Your task to perform on an android device: set default search engine in the chrome app Image 0: 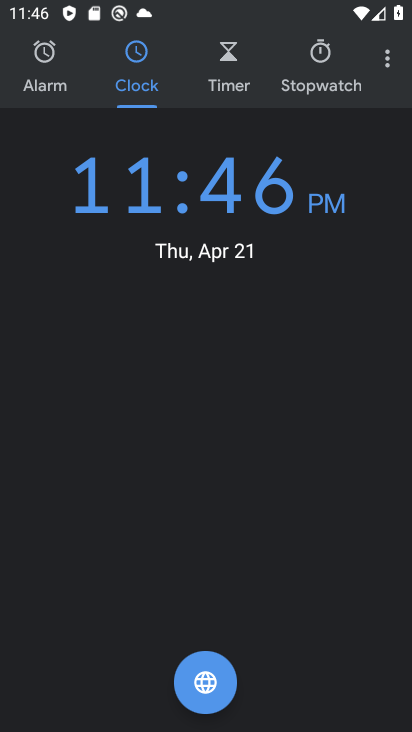
Step 0: press home button
Your task to perform on an android device: set default search engine in the chrome app Image 1: 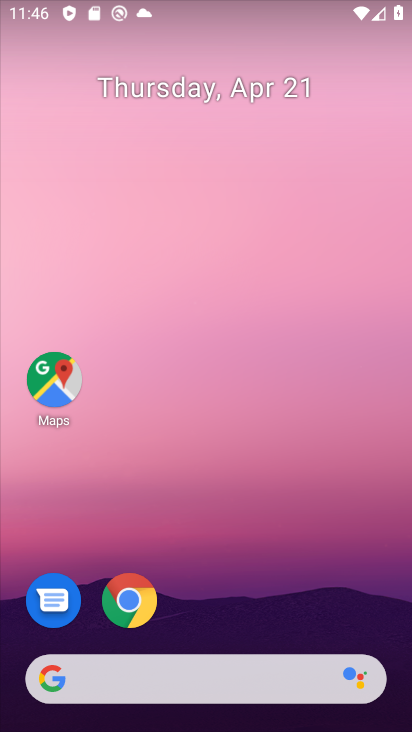
Step 1: click (112, 592)
Your task to perform on an android device: set default search engine in the chrome app Image 2: 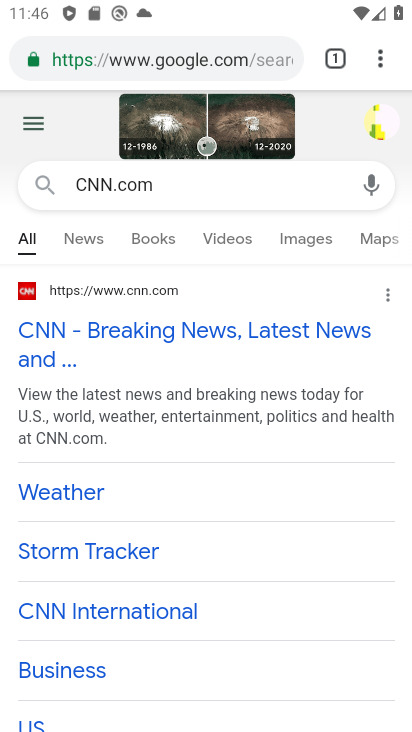
Step 2: click (379, 62)
Your task to perform on an android device: set default search engine in the chrome app Image 3: 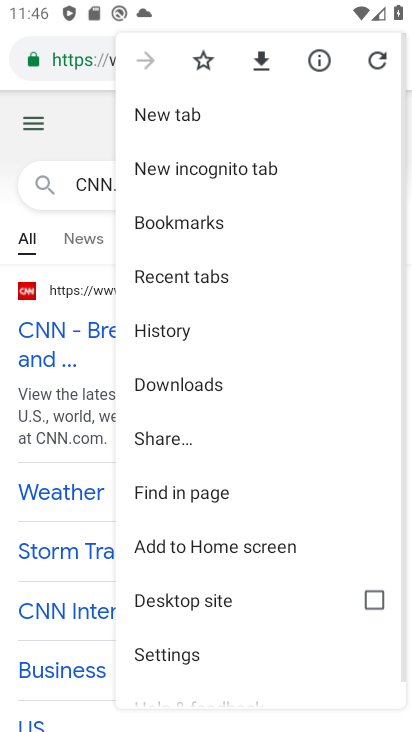
Step 3: click (165, 655)
Your task to perform on an android device: set default search engine in the chrome app Image 4: 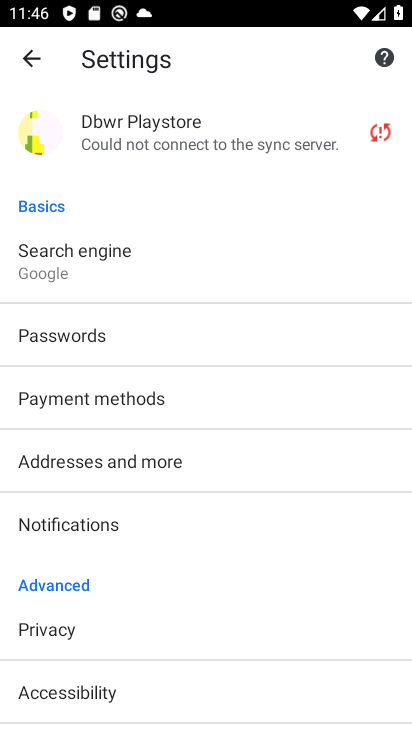
Step 4: click (113, 264)
Your task to perform on an android device: set default search engine in the chrome app Image 5: 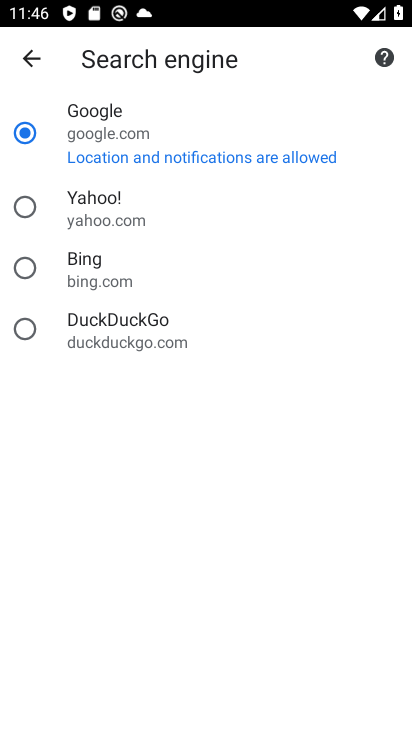
Step 5: task complete